Your task to perform on an android device: find which apps use the phone's location Image 0: 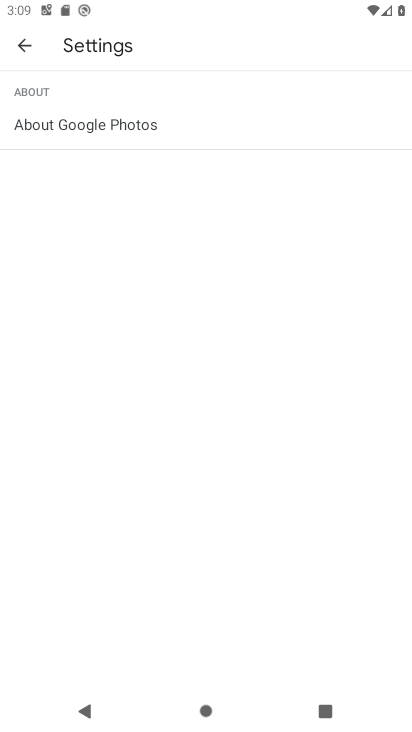
Step 0: press home button
Your task to perform on an android device: find which apps use the phone's location Image 1: 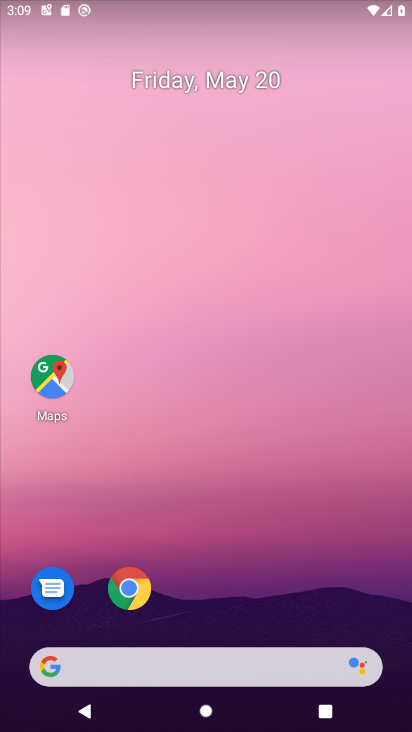
Step 1: drag from (236, 555) to (245, 94)
Your task to perform on an android device: find which apps use the phone's location Image 2: 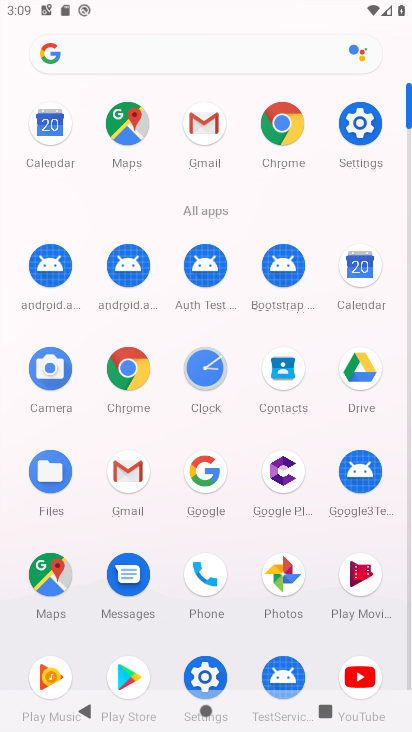
Step 2: click (356, 123)
Your task to perform on an android device: find which apps use the phone's location Image 3: 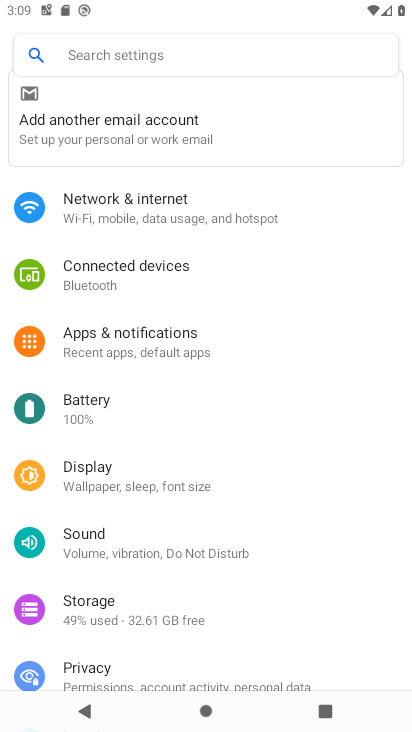
Step 3: drag from (155, 464) to (232, 200)
Your task to perform on an android device: find which apps use the phone's location Image 4: 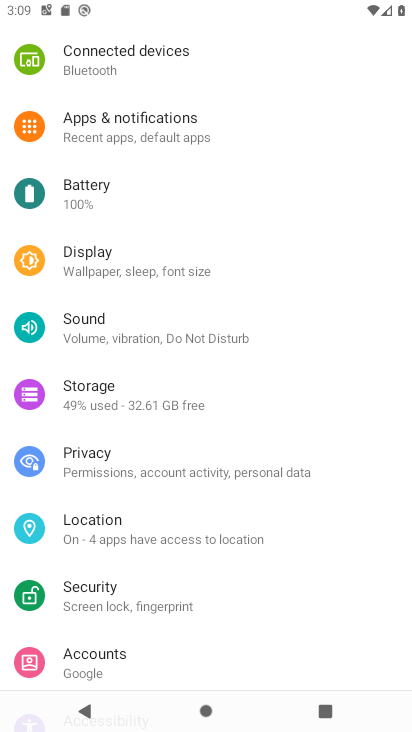
Step 4: drag from (173, 518) to (221, 221)
Your task to perform on an android device: find which apps use the phone's location Image 5: 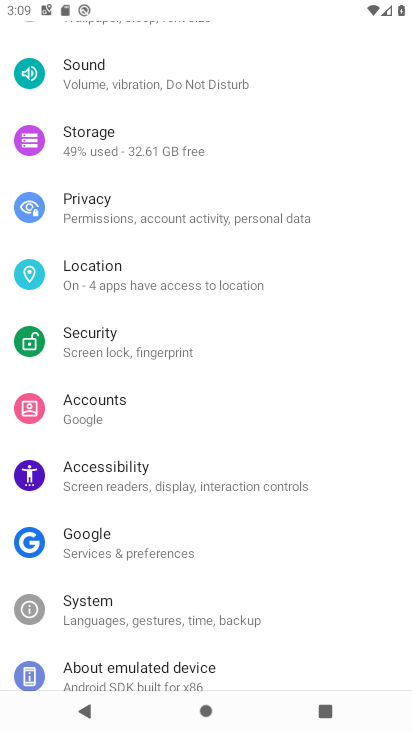
Step 5: click (167, 263)
Your task to perform on an android device: find which apps use the phone's location Image 6: 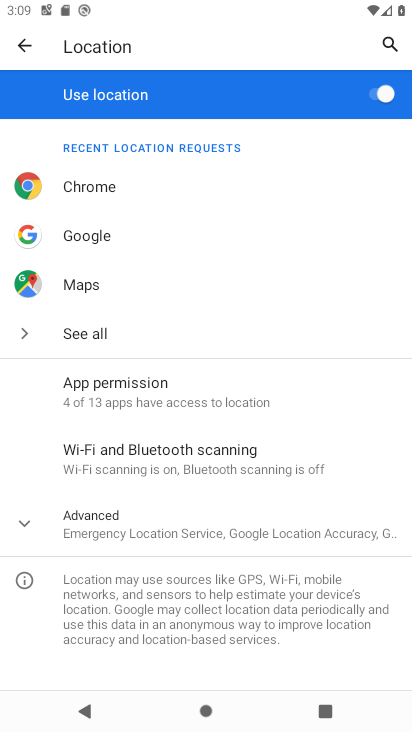
Step 6: click (122, 391)
Your task to perform on an android device: find which apps use the phone's location Image 7: 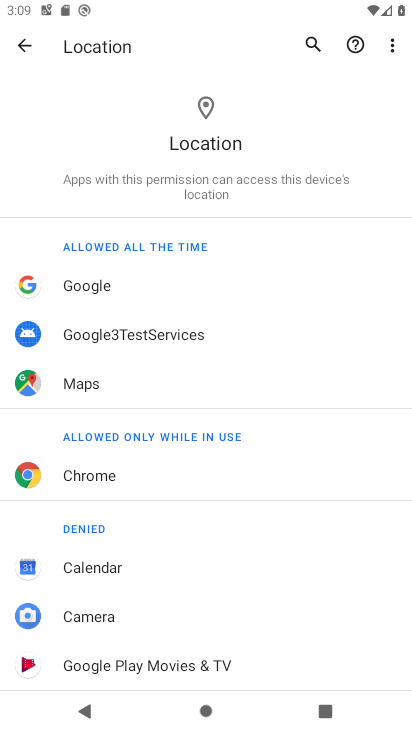
Step 7: task complete